Your task to perform on an android device: When is my next appointment? Image 0: 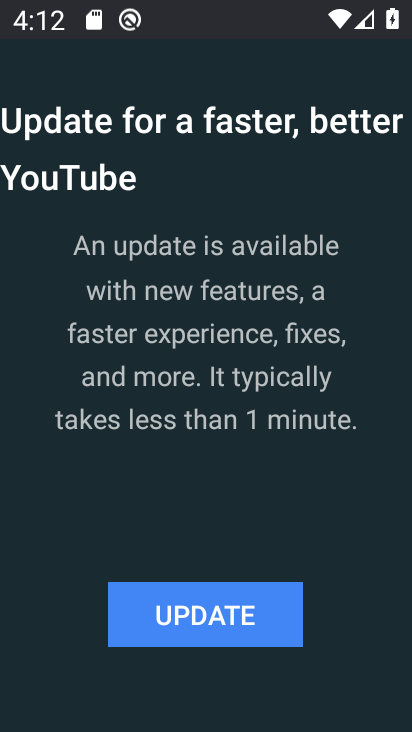
Step 0: press back button
Your task to perform on an android device: When is my next appointment? Image 1: 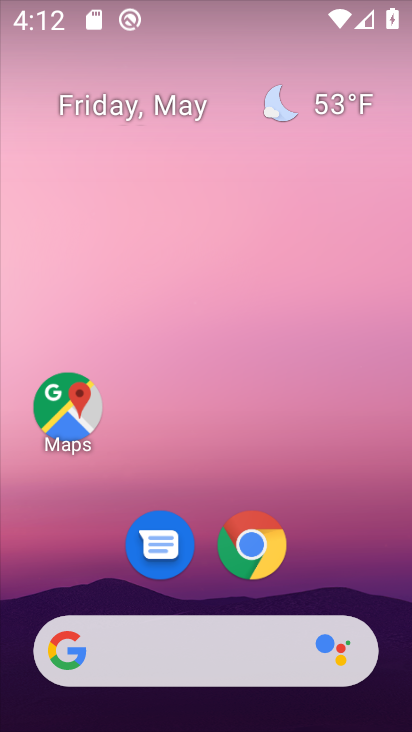
Step 1: drag from (356, 578) to (357, 230)
Your task to perform on an android device: When is my next appointment? Image 2: 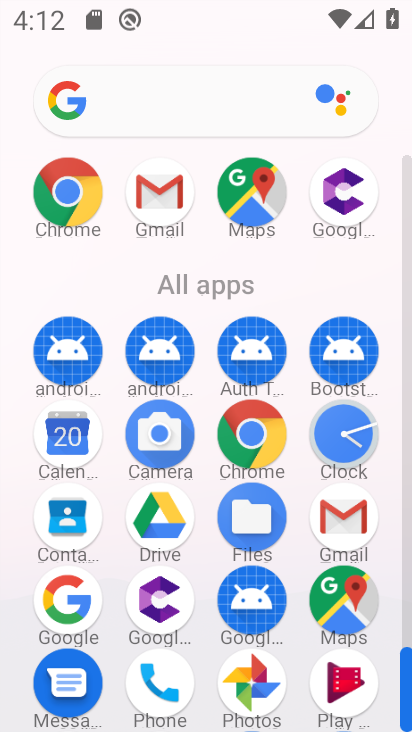
Step 2: click (58, 455)
Your task to perform on an android device: When is my next appointment? Image 3: 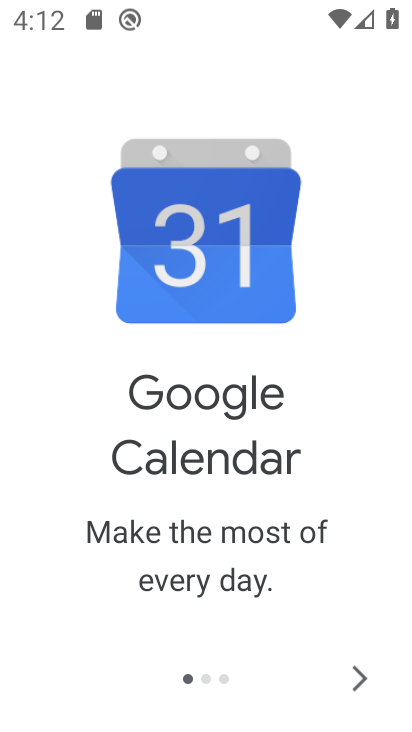
Step 3: click (348, 681)
Your task to perform on an android device: When is my next appointment? Image 4: 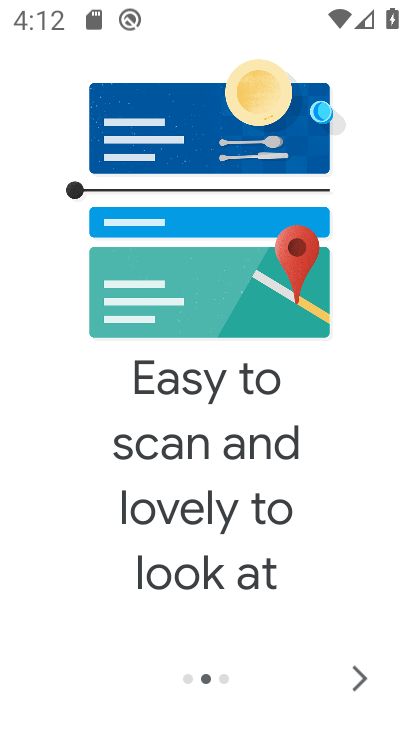
Step 4: click (352, 686)
Your task to perform on an android device: When is my next appointment? Image 5: 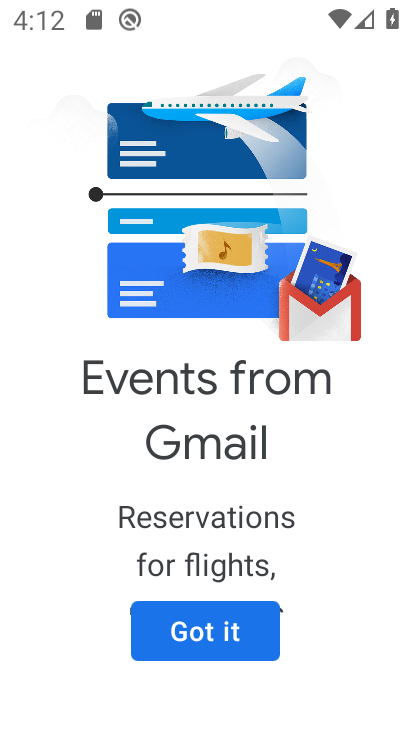
Step 5: click (234, 641)
Your task to perform on an android device: When is my next appointment? Image 6: 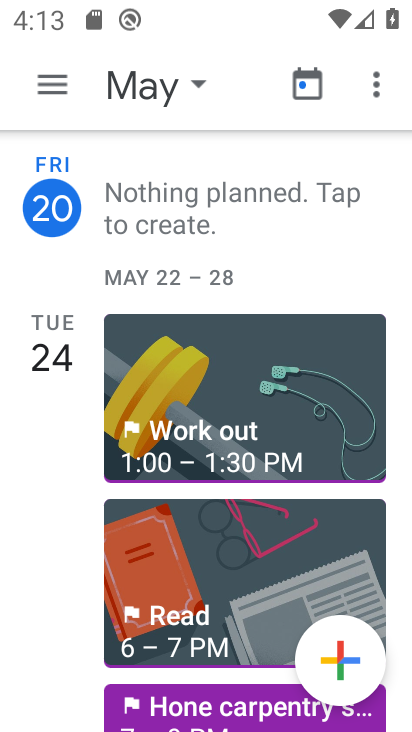
Step 6: click (278, 397)
Your task to perform on an android device: When is my next appointment? Image 7: 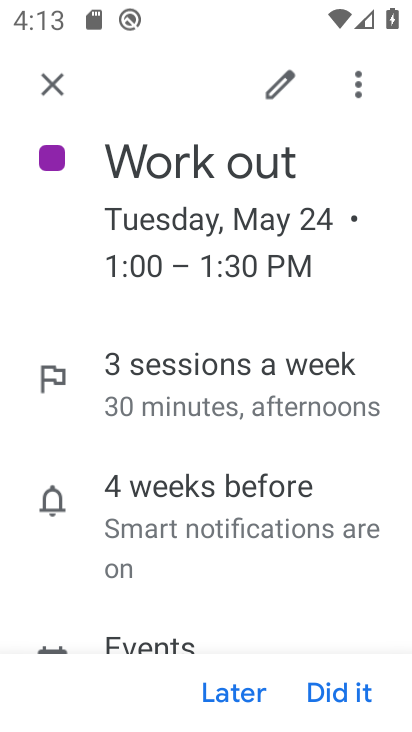
Step 7: task complete